Your task to perform on an android device: Open Maps and search for coffee Image 0: 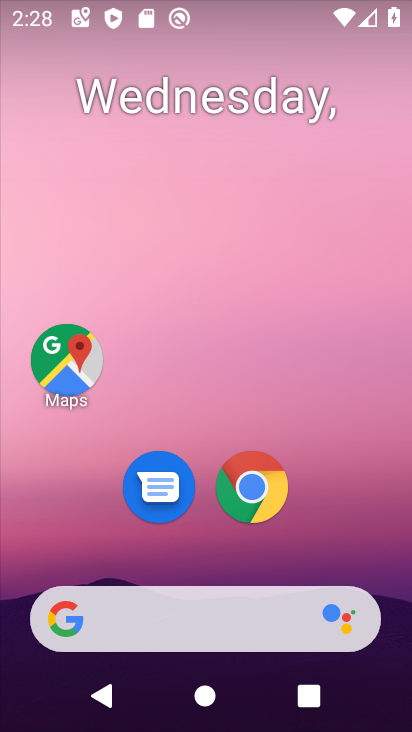
Step 0: click (73, 367)
Your task to perform on an android device: Open Maps and search for coffee Image 1: 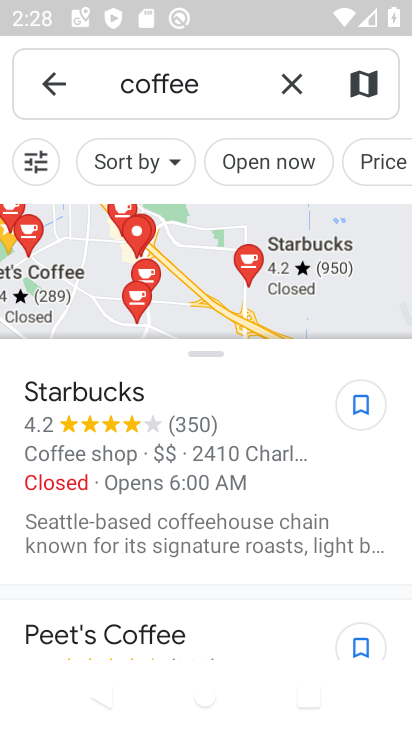
Step 1: task complete